Your task to perform on an android device: allow cookies in the chrome app Image 0: 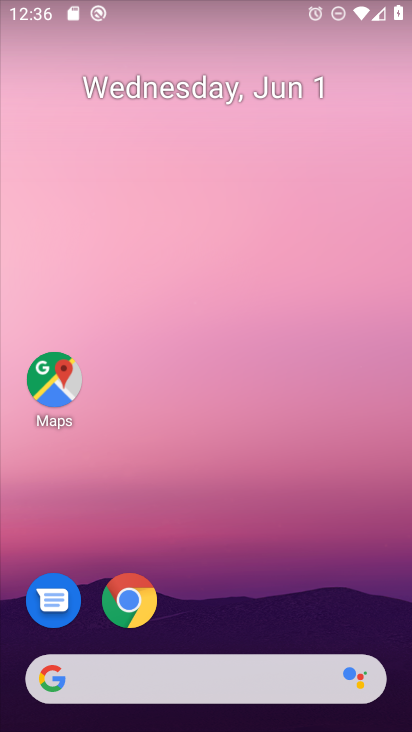
Step 0: click (122, 596)
Your task to perform on an android device: allow cookies in the chrome app Image 1: 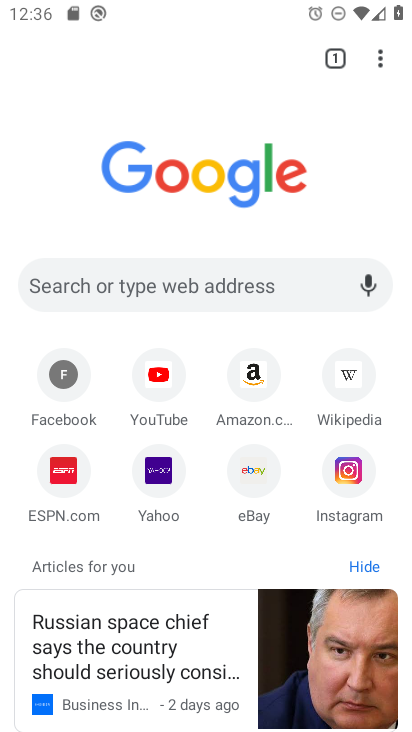
Step 1: click (380, 52)
Your task to perform on an android device: allow cookies in the chrome app Image 2: 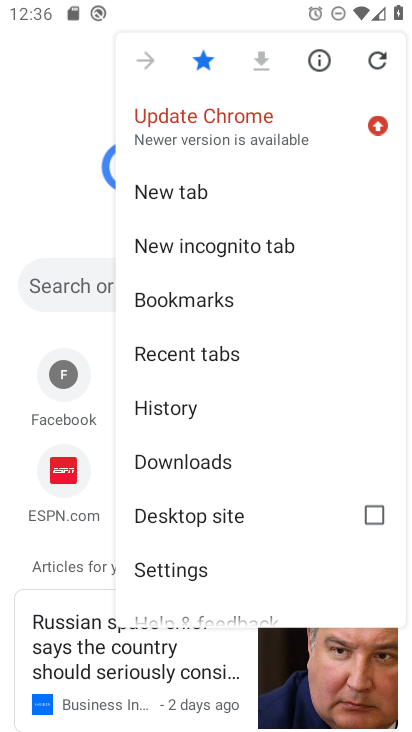
Step 2: click (217, 567)
Your task to perform on an android device: allow cookies in the chrome app Image 3: 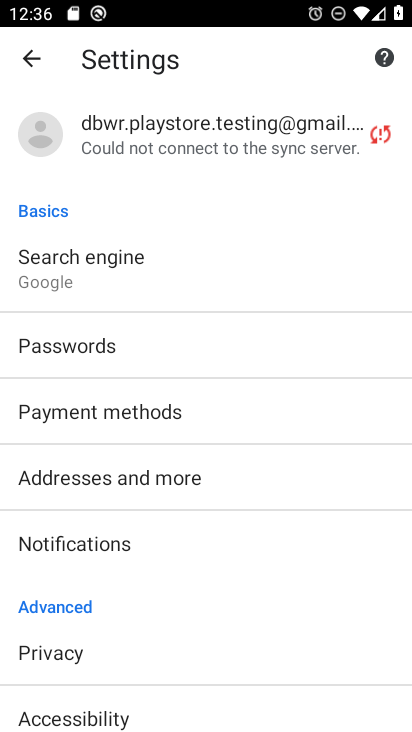
Step 3: drag from (160, 647) to (187, 181)
Your task to perform on an android device: allow cookies in the chrome app Image 4: 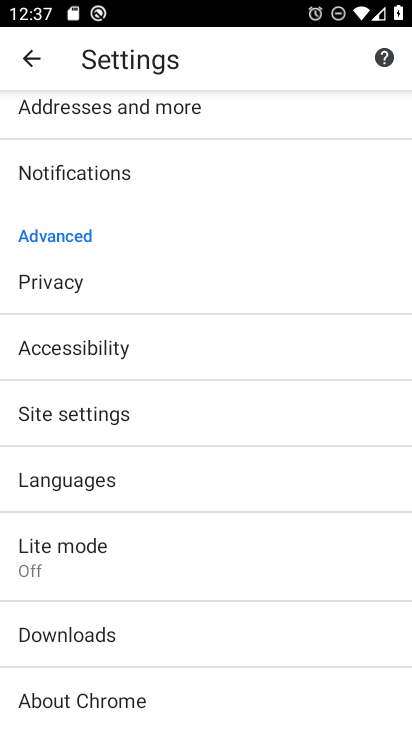
Step 4: click (141, 406)
Your task to perform on an android device: allow cookies in the chrome app Image 5: 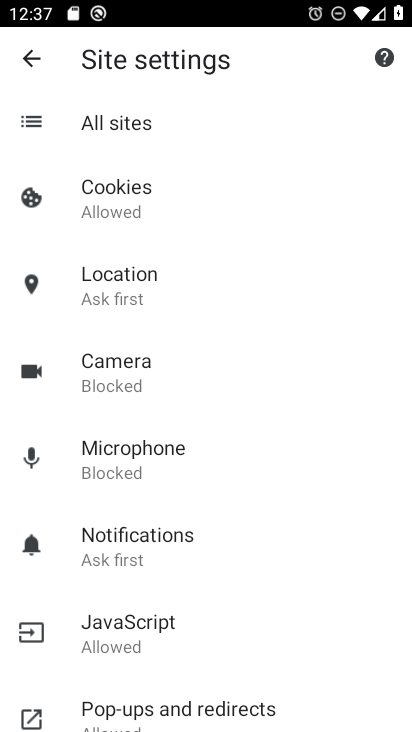
Step 5: click (152, 192)
Your task to perform on an android device: allow cookies in the chrome app Image 6: 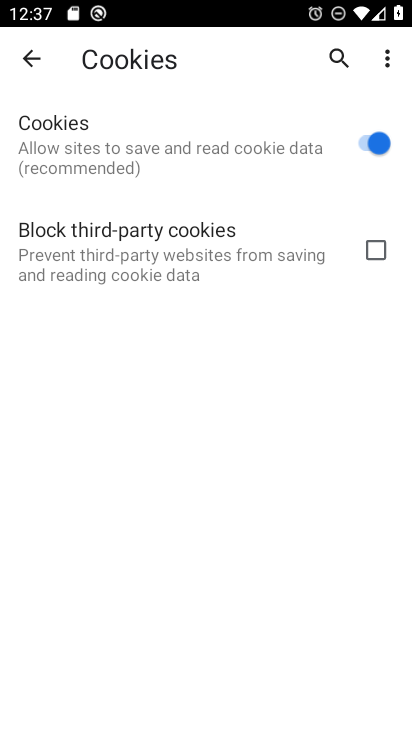
Step 6: task complete